Your task to perform on an android device: Open the phone app and click the voicemail tab. Image 0: 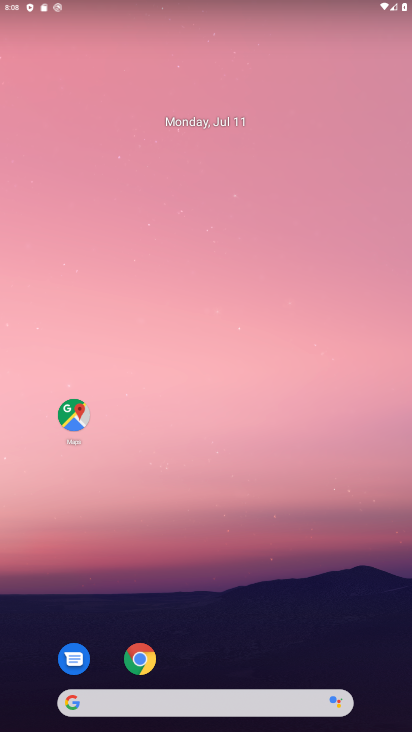
Step 0: drag from (27, 696) to (277, 5)
Your task to perform on an android device: Open the phone app and click the voicemail tab. Image 1: 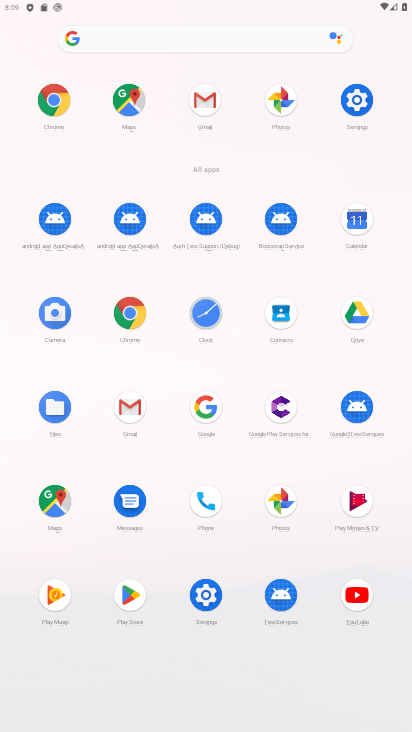
Step 1: click (202, 507)
Your task to perform on an android device: Open the phone app and click the voicemail tab. Image 2: 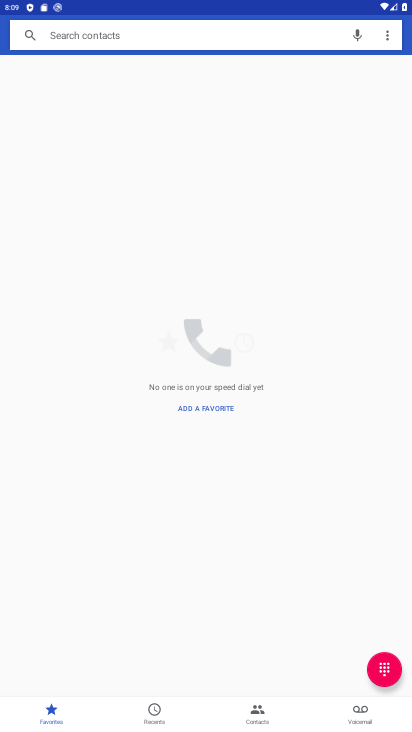
Step 2: click (358, 708)
Your task to perform on an android device: Open the phone app and click the voicemail tab. Image 3: 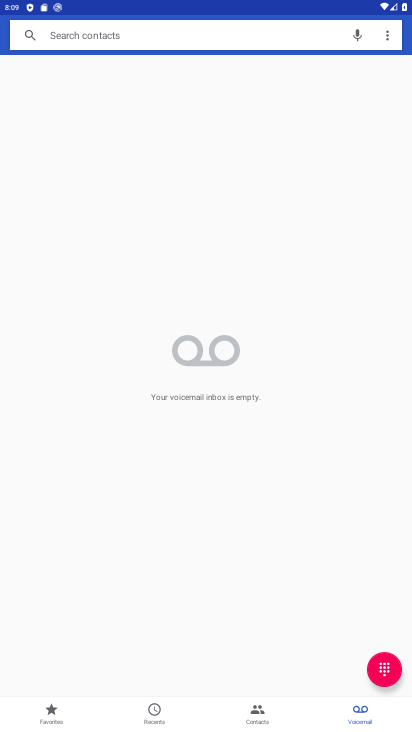
Step 3: task complete